Your task to perform on an android device: Go to internet settings Image 0: 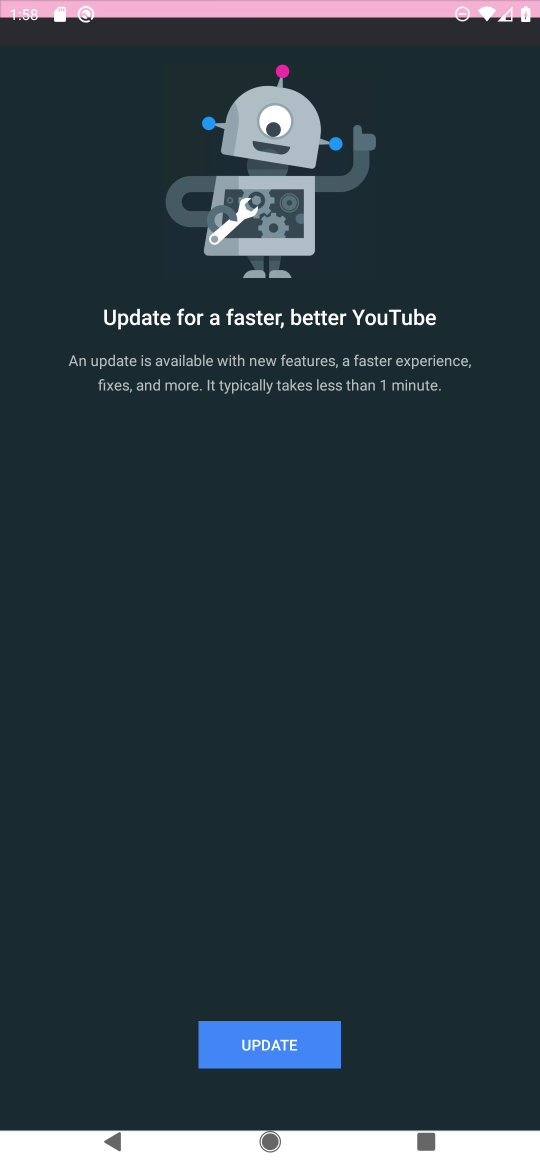
Step 0: press home button
Your task to perform on an android device: Go to internet settings Image 1: 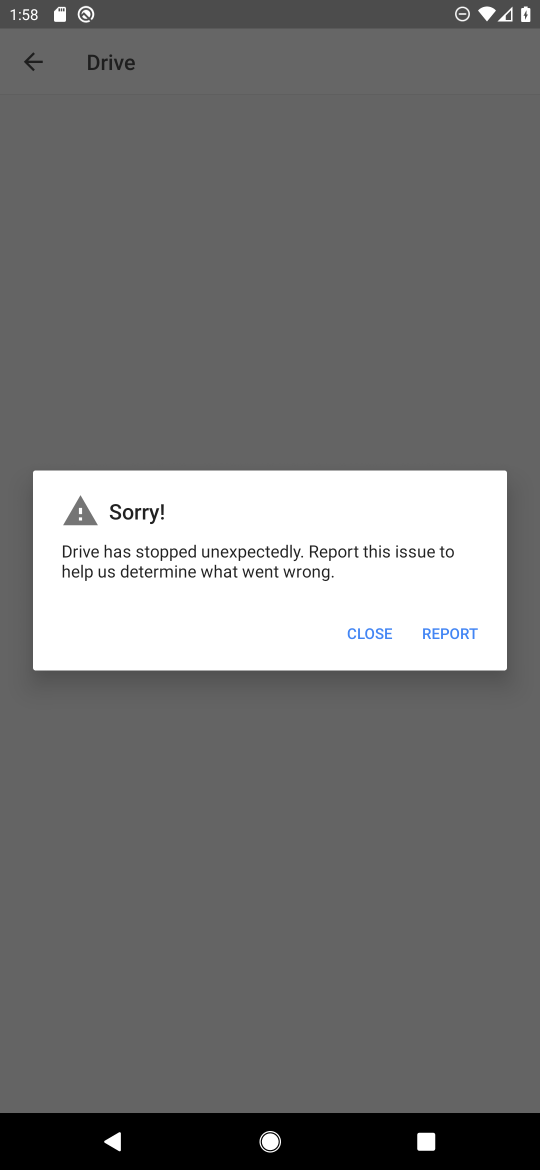
Step 1: drag from (277, 1077) to (316, 947)
Your task to perform on an android device: Go to internet settings Image 2: 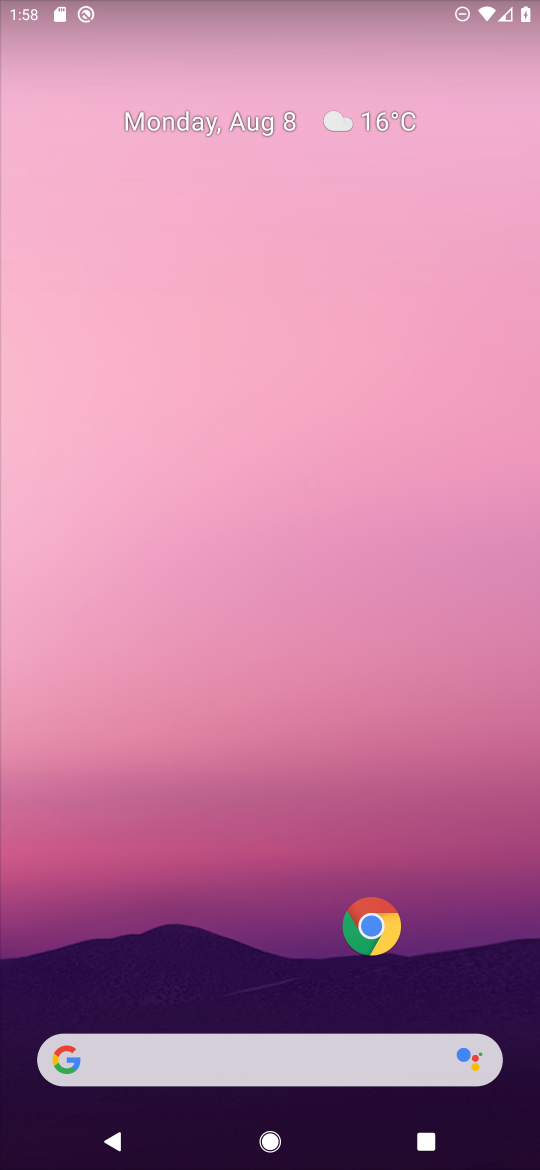
Step 2: drag from (122, 1084) to (317, 421)
Your task to perform on an android device: Go to internet settings Image 3: 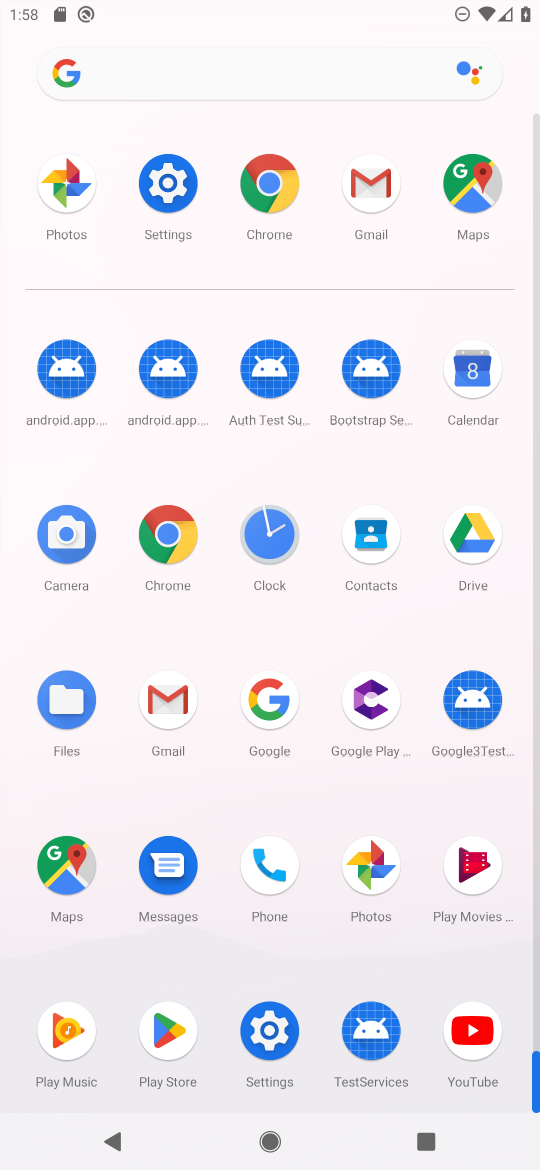
Step 3: click (152, 186)
Your task to perform on an android device: Go to internet settings Image 4: 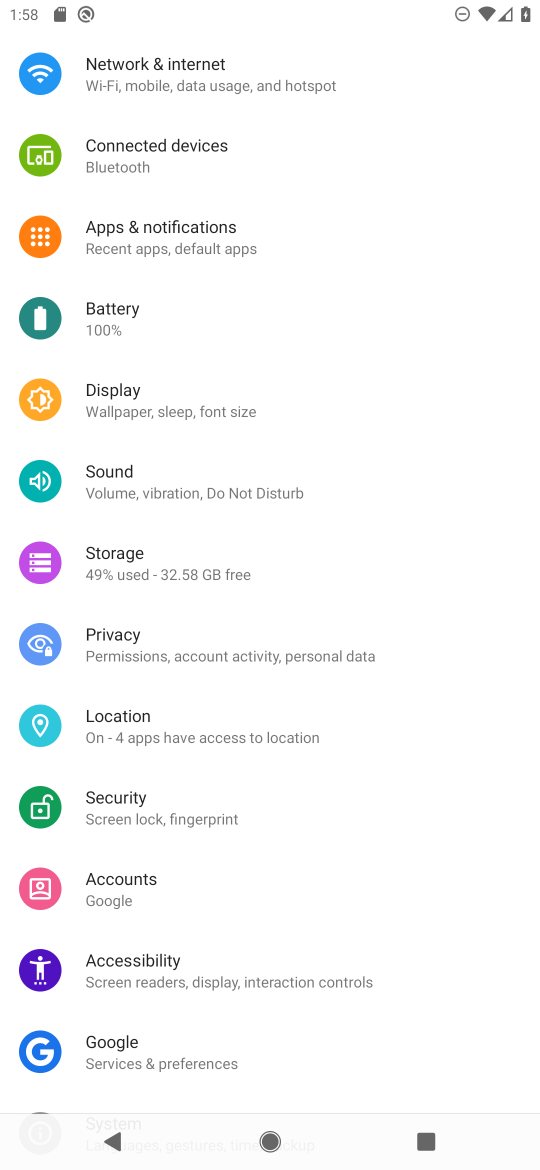
Step 4: click (241, 71)
Your task to perform on an android device: Go to internet settings Image 5: 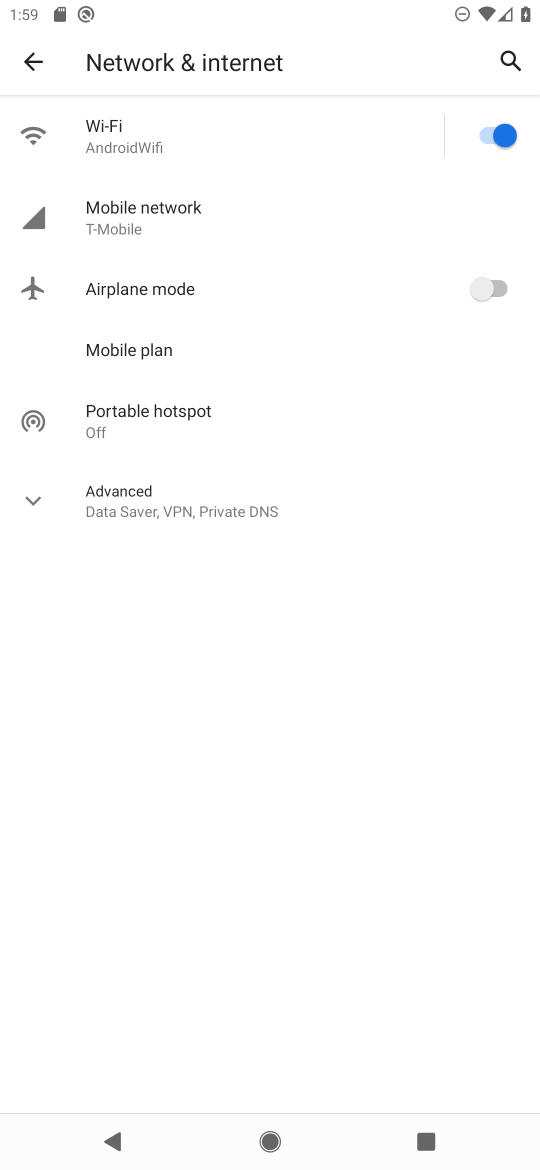
Step 5: task complete